Your task to perform on an android device: What's the weather going to be tomorrow? Image 0: 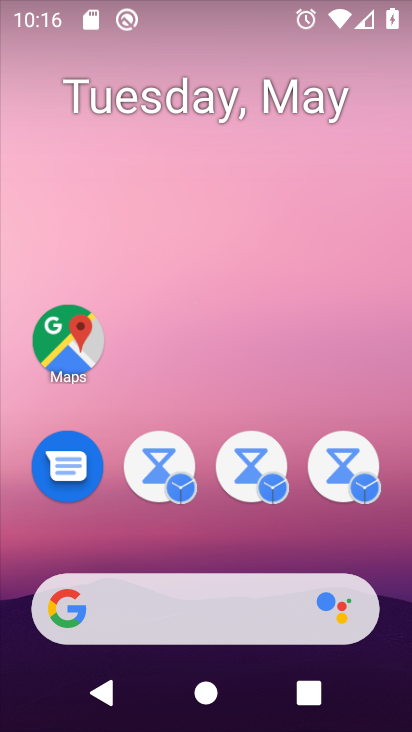
Step 0: drag from (262, 698) to (170, 231)
Your task to perform on an android device: What's the weather going to be tomorrow? Image 1: 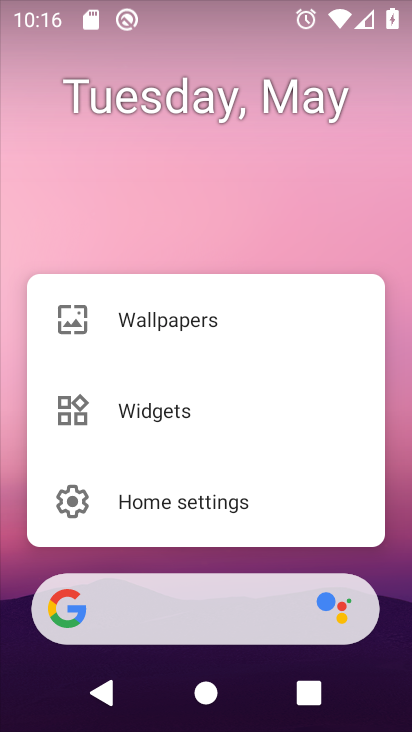
Step 1: click (253, 186)
Your task to perform on an android device: What's the weather going to be tomorrow? Image 2: 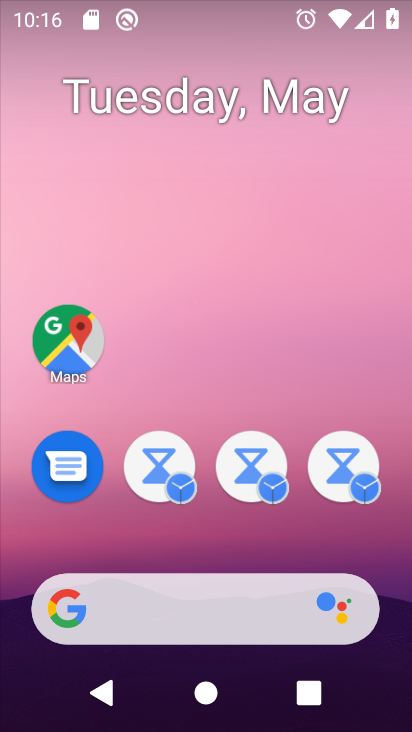
Step 2: click (255, 187)
Your task to perform on an android device: What's the weather going to be tomorrow? Image 3: 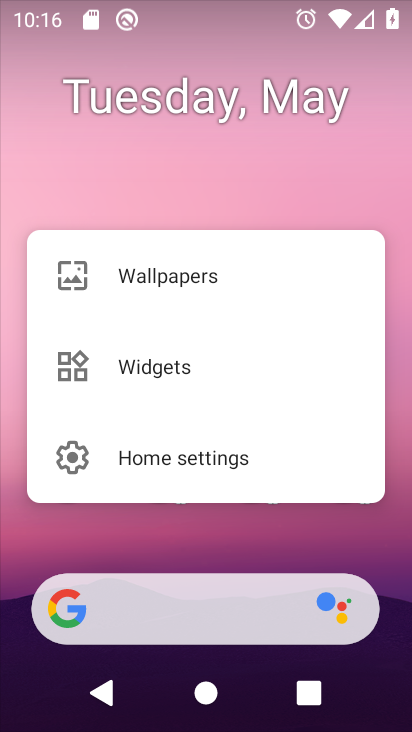
Step 3: press back button
Your task to perform on an android device: What's the weather going to be tomorrow? Image 4: 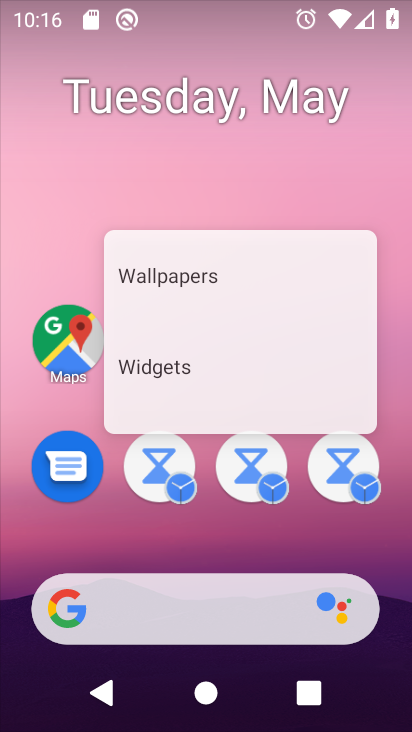
Step 4: press back button
Your task to perform on an android device: What's the weather going to be tomorrow? Image 5: 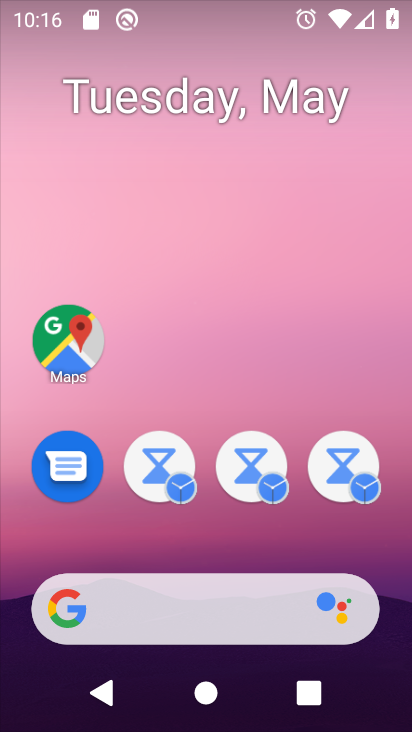
Step 5: drag from (353, 621) to (126, 19)
Your task to perform on an android device: What's the weather going to be tomorrow? Image 6: 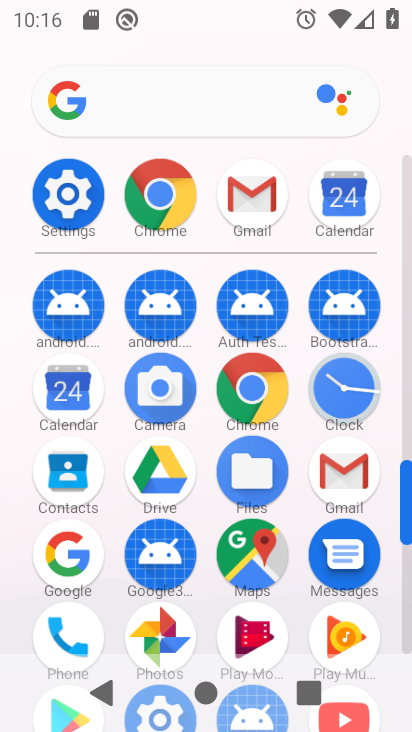
Step 6: press back button
Your task to perform on an android device: What's the weather going to be tomorrow? Image 7: 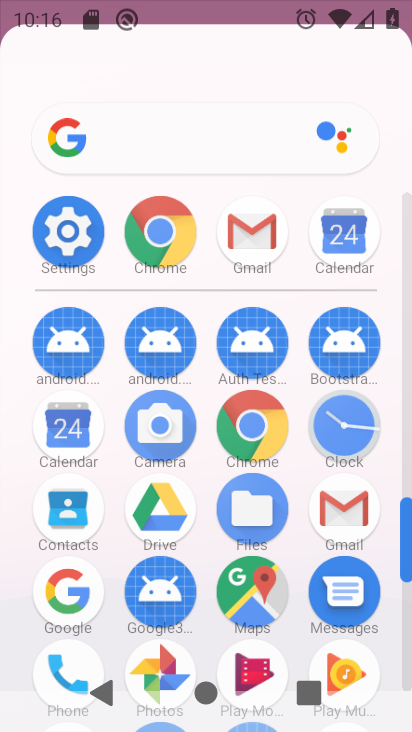
Step 7: press back button
Your task to perform on an android device: What's the weather going to be tomorrow? Image 8: 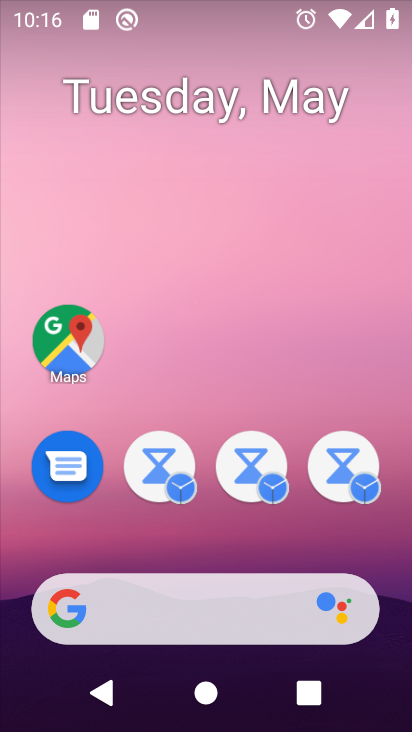
Step 8: press back button
Your task to perform on an android device: What's the weather going to be tomorrow? Image 9: 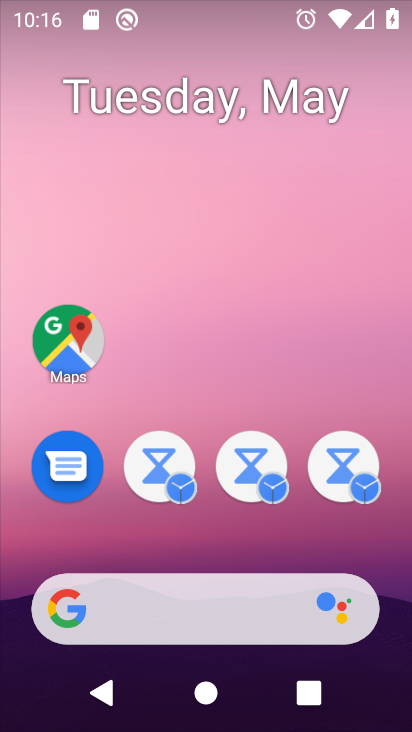
Step 9: drag from (6, 176) to (396, 313)
Your task to perform on an android device: What's the weather going to be tomorrow? Image 10: 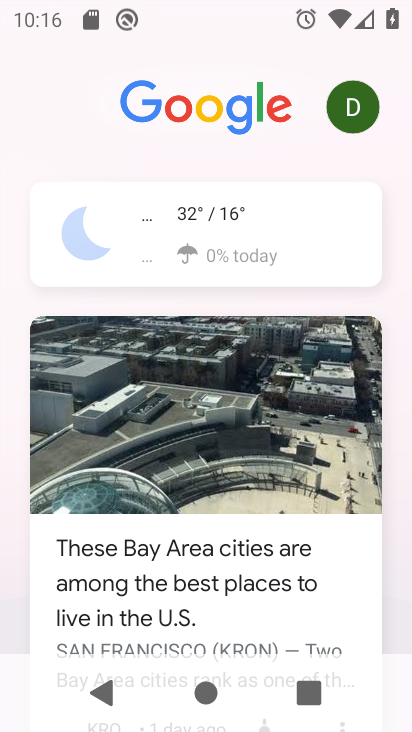
Step 10: click (185, 238)
Your task to perform on an android device: What's the weather going to be tomorrow? Image 11: 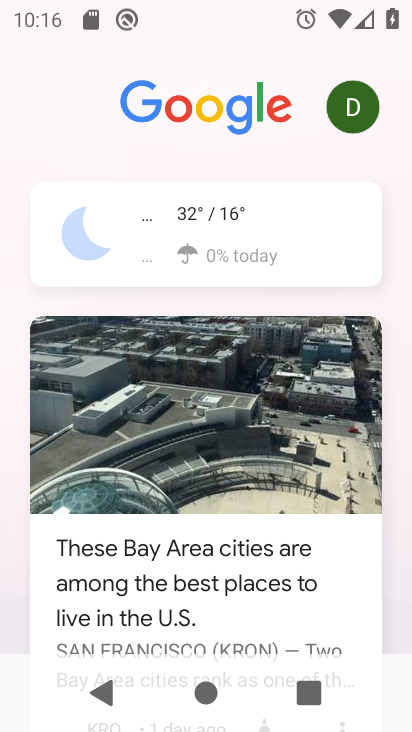
Step 11: click (185, 237)
Your task to perform on an android device: What's the weather going to be tomorrow? Image 12: 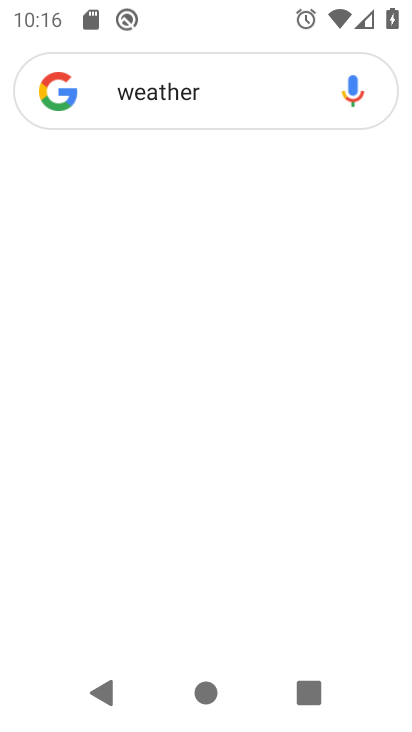
Step 12: click (187, 234)
Your task to perform on an android device: What's the weather going to be tomorrow? Image 13: 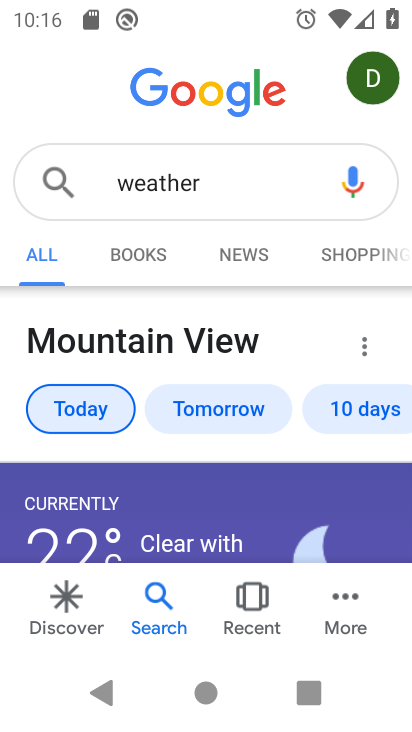
Step 13: task complete